Your task to perform on an android device: open a new tab in the chrome app Image 0: 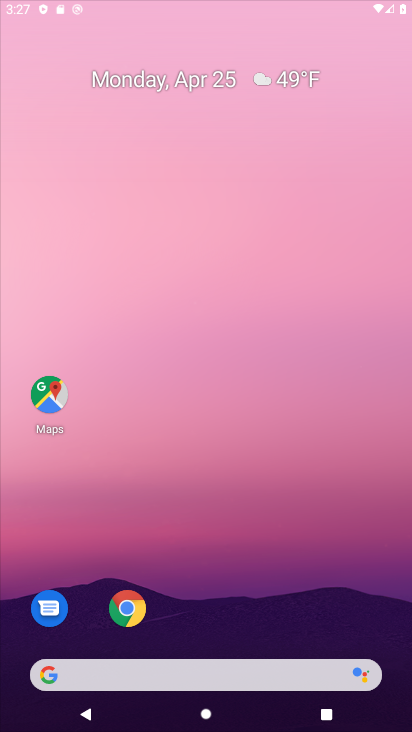
Step 0: click (379, 148)
Your task to perform on an android device: open a new tab in the chrome app Image 1: 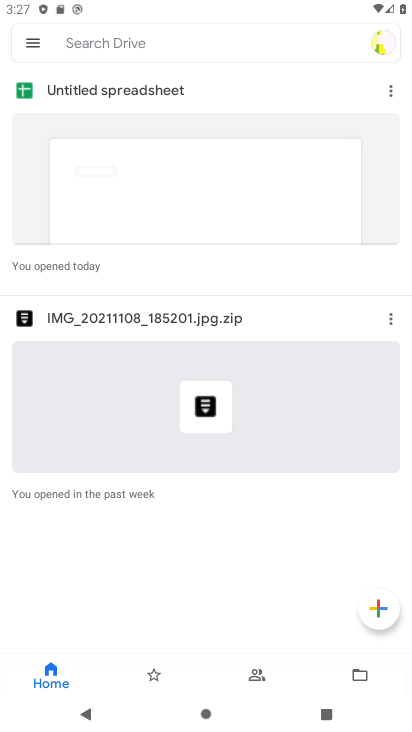
Step 1: press home button
Your task to perform on an android device: open a new tab in the chrome app Image 2: 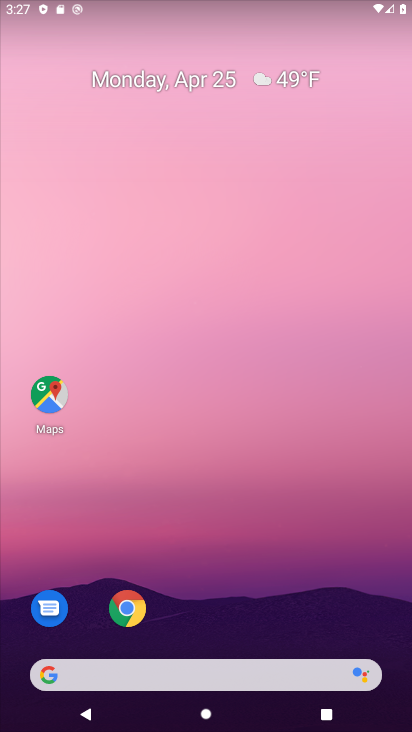
Step 2: click (120, 606)
Your task to perform on an android device: open a new tab in the chrome app Image 3: 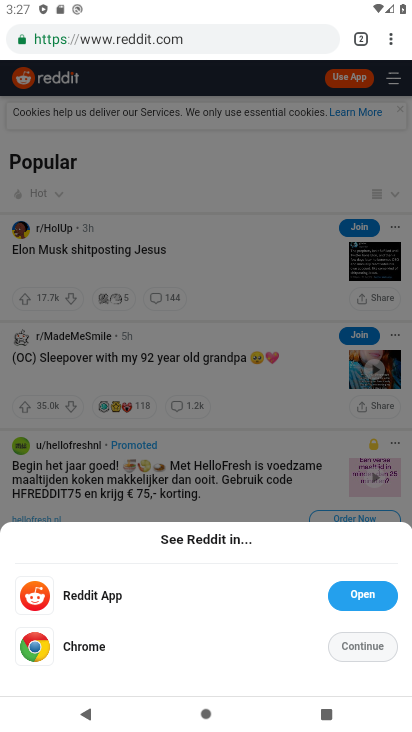
Step 3: click (363, 29)
Your task to perform on an android device: open a new tab in the chrome app Image 4: 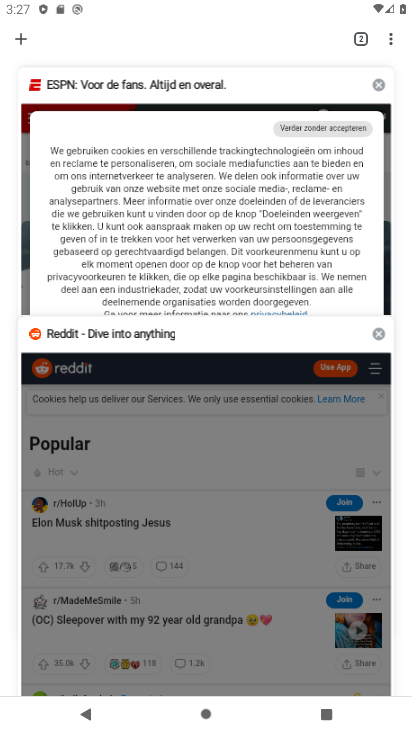
Step 4: click (12, 40)
Your task to perform on an android device: open a new tab in the chrome app Image 5: 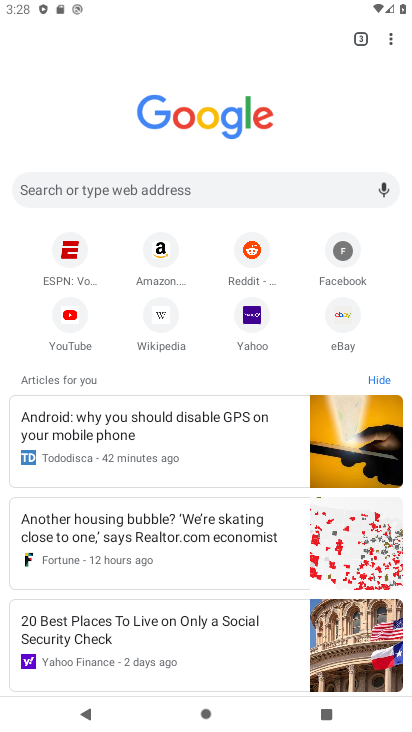
Step 5: task complete